Your task to perform on an android device: Clear the cart on ebay.com. Search for razer blade on ebay.com, select the first entry, add it to the cart, then select checkout. Image 0: 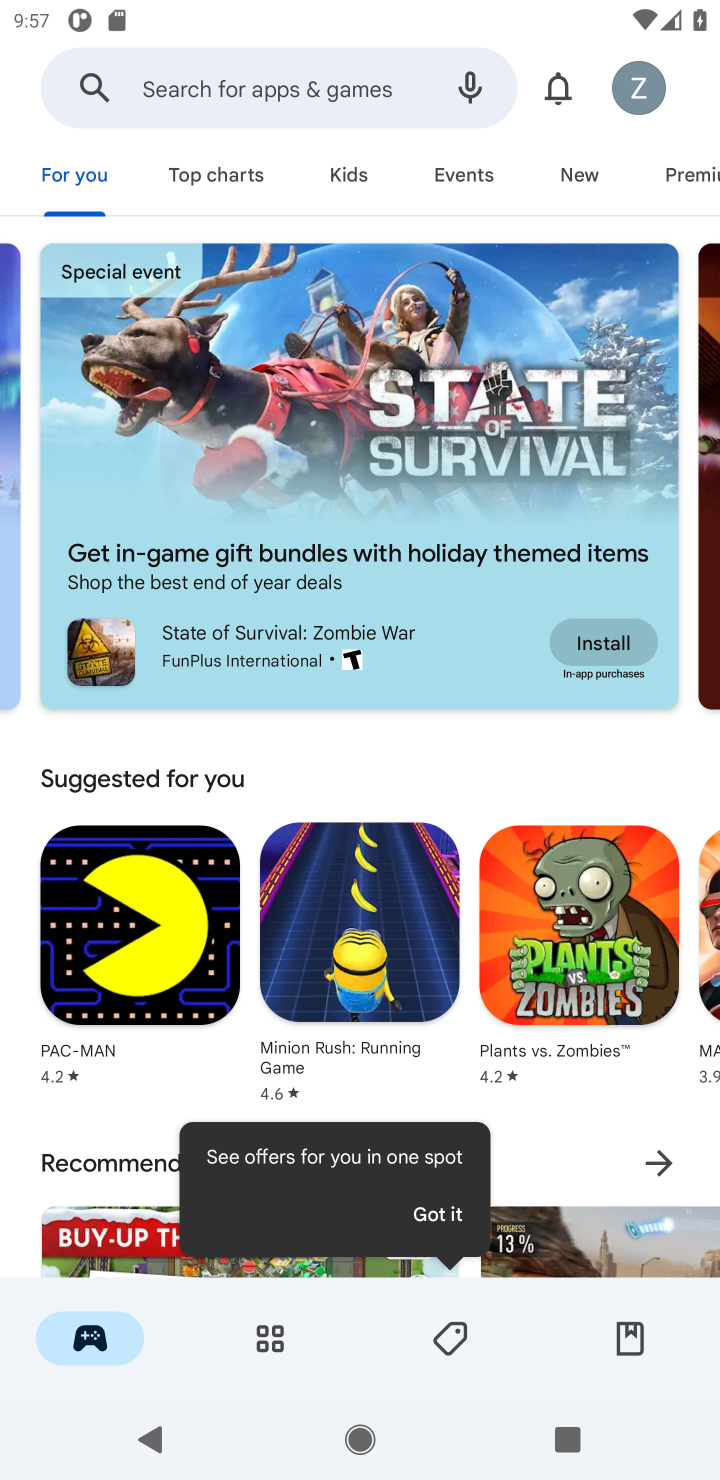
Step 0: task complete